Your task to perform on an android device: turn off javascript in the chrome app Image 0: 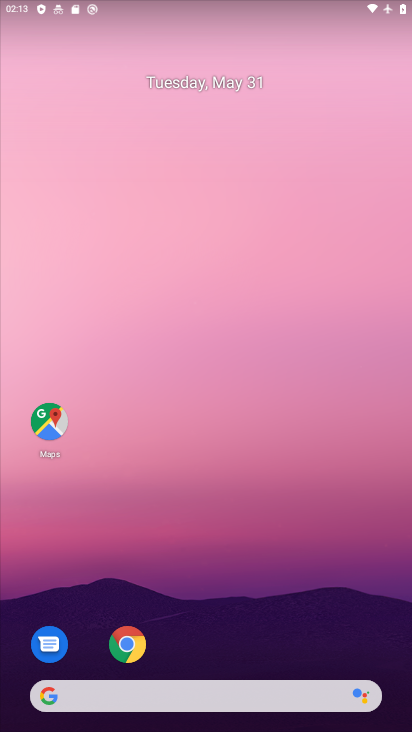
Step 0: drag from (241, 617) to (218, 142)
Your task to perform on an android device: turn off javascript in the chrome app Image 1: 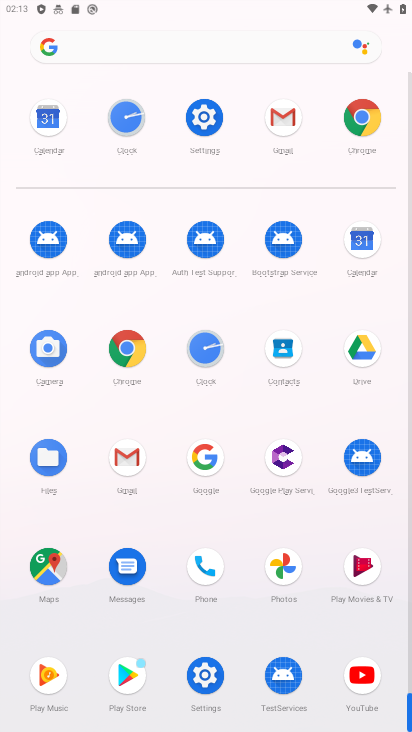
Step 1: click (364, 117)
Your task to perform on an android device: turn off javascript in the chrome app Image 2: 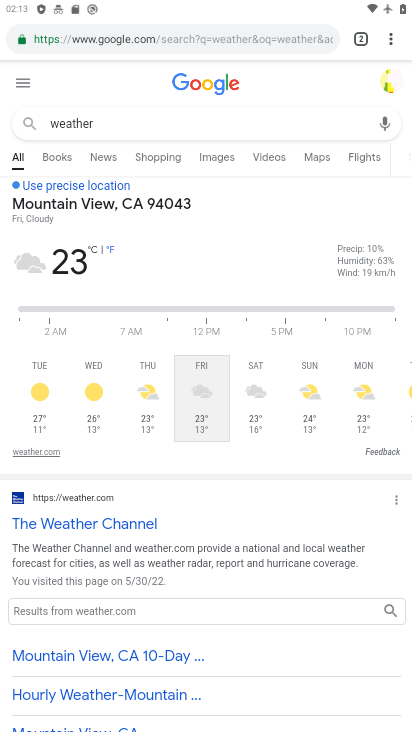
Step 2: click (388, 35)
Your task to perform on an android device: turn off javascript in the chrome app Image 3: 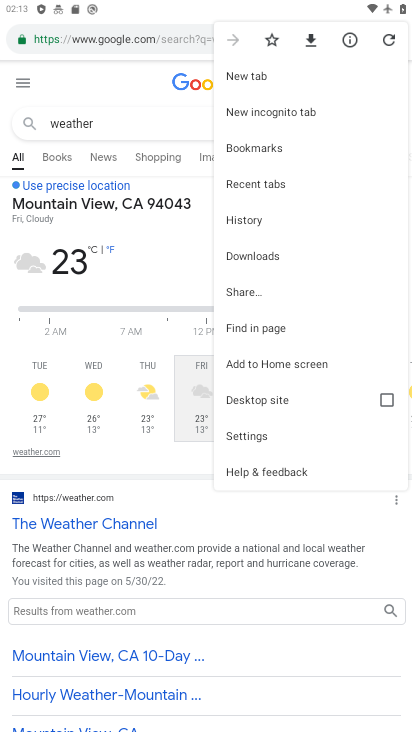
Step 3: click (257, 435)
Your task to perform on an android device: turn off javascript in the chrome app Image 4: 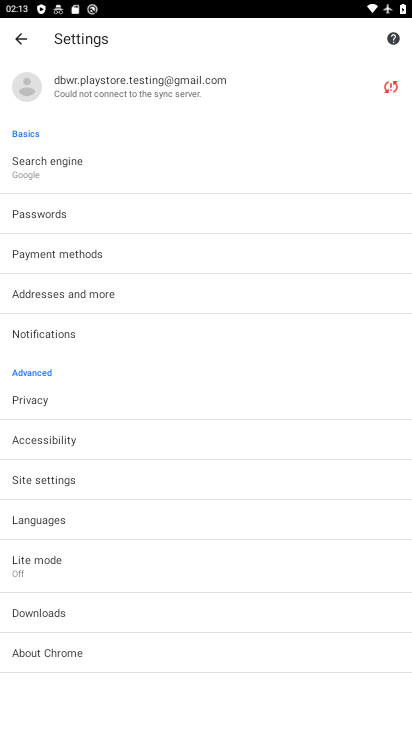
Step 4: click (66, 479)
Your task to perform on an android device: turn off javascript in the chrome app Image 5: 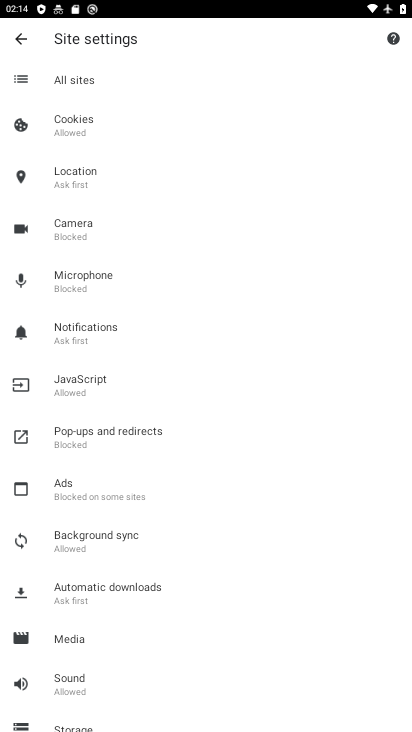
Step 5: click (95, 390)
Your task to perform on an android device: turn off javascript in the chrome app Image 6: 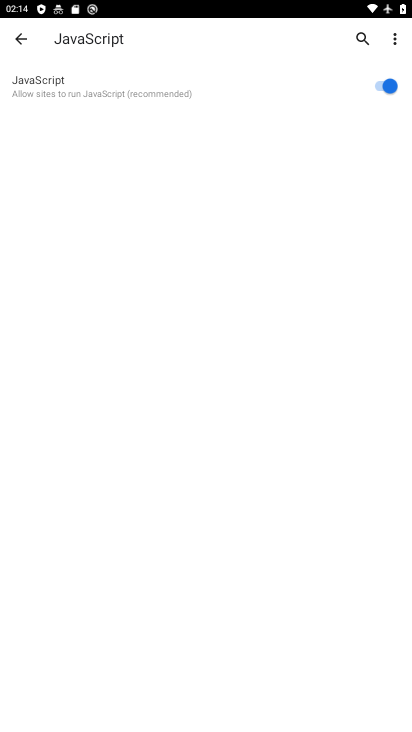
Step 6: click (387, 87)
Your task to perform on an android device: turn off javascript in the chrome app Image 7: 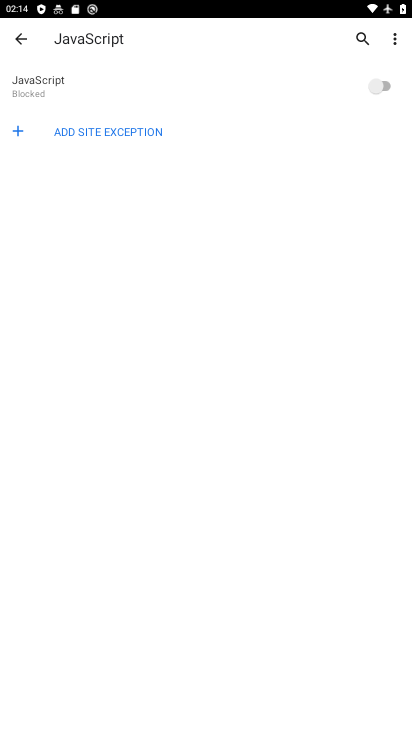
Step 7: task complete